Your task to perform on an android device: Open my contact list Image 0: 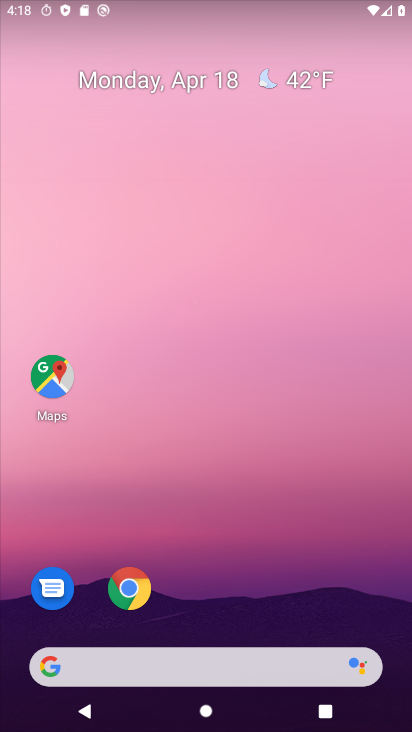
Step 0: drag from (262, 507) to (224, 110)
Your task to perform on an android device: Open my contact list Image 1: 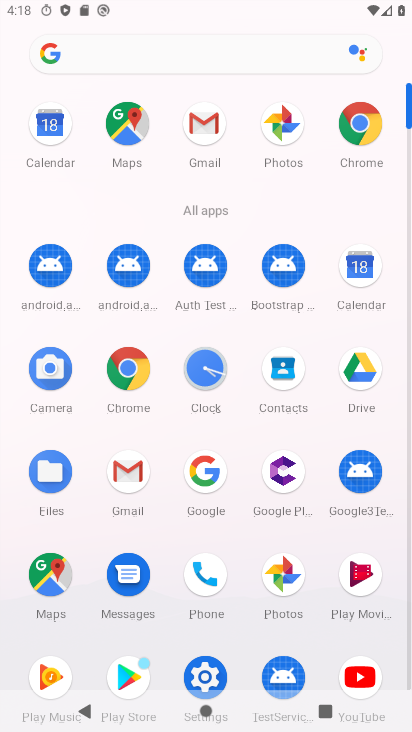
Step 1: click (284, 362)
Your task to perform on an android device: Open my contact list Image 2: 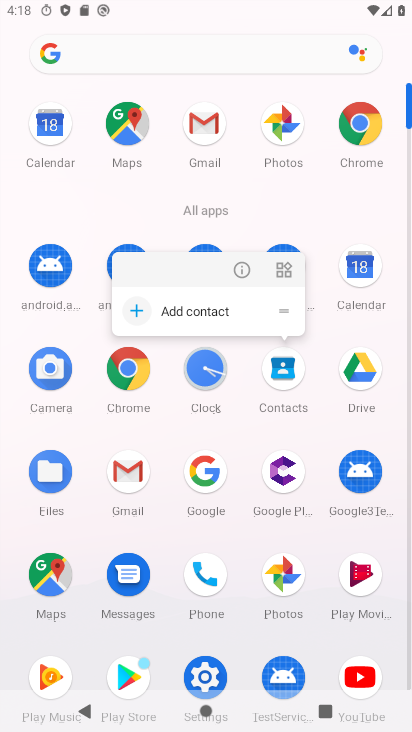
Step 2: click (281, 364)
Your task to perform on an android device: Open my contact list Image 3: 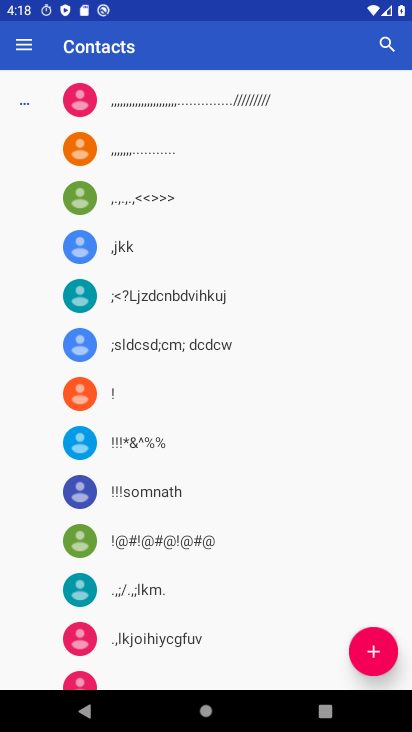
Step 3: task complete